Your task to perform on an android device: change notifications settings Image 0: 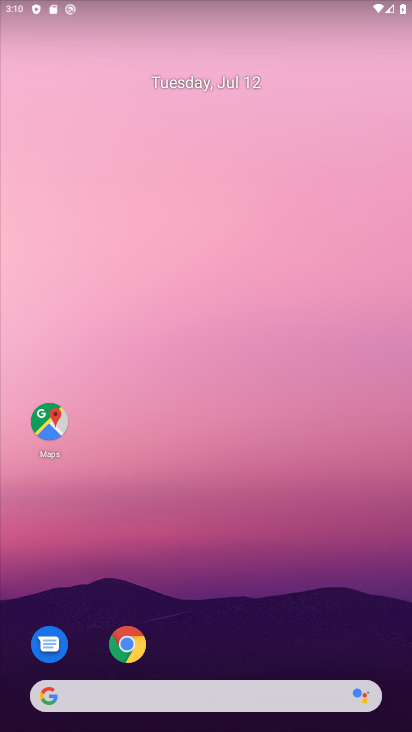
Step 0: drag from (239, 585) to (215, 61)
Your task to perform on an android device: change notifications settings Image 1: 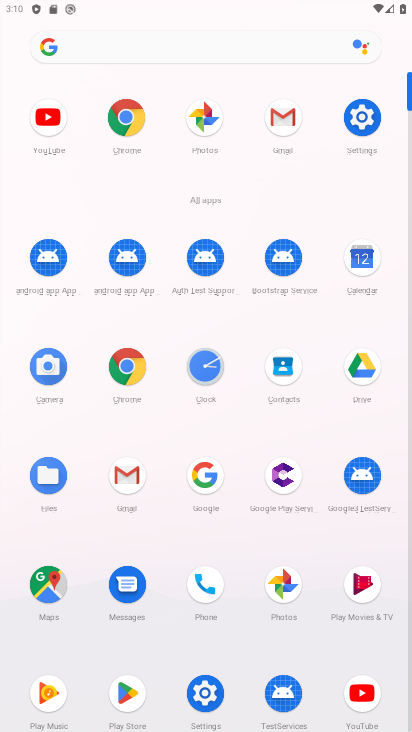
Step 1: click (372, 108)
Your task to perform on an android device: change notifications settings Image 2: 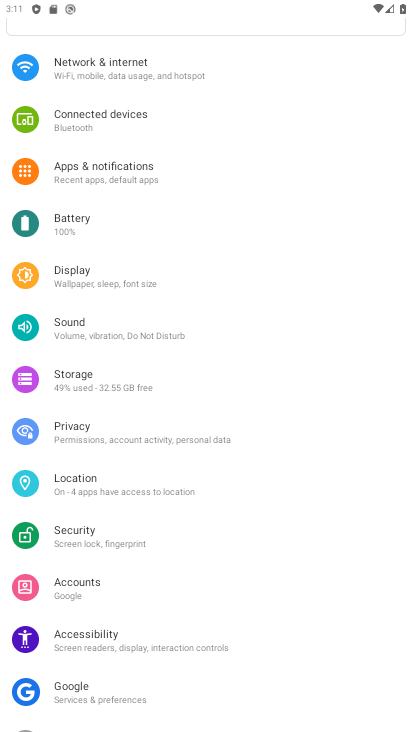
Step 2: click (130, 164)
Your task to perform on an android device: change notifications settings Image 3: 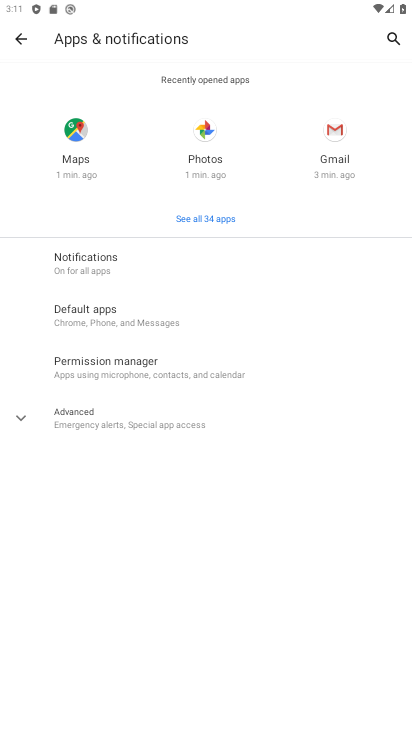
Step 3: click (124, 261)
Your task to perform on an android device: change notifications settings Image 4: 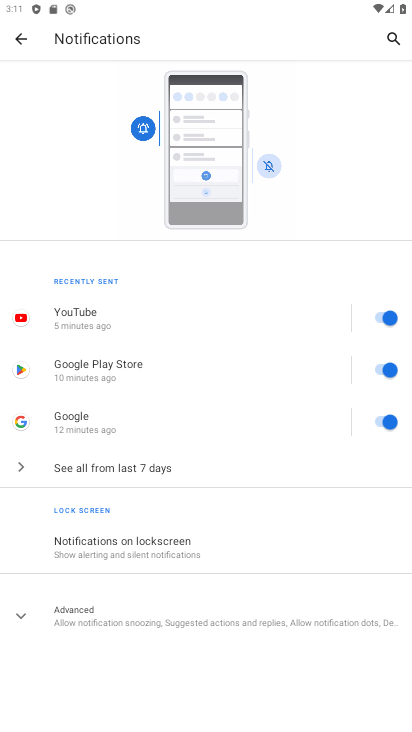
Step 4: click (97, 635)
Your task to perform on an android device: change notifications settings Image 5: 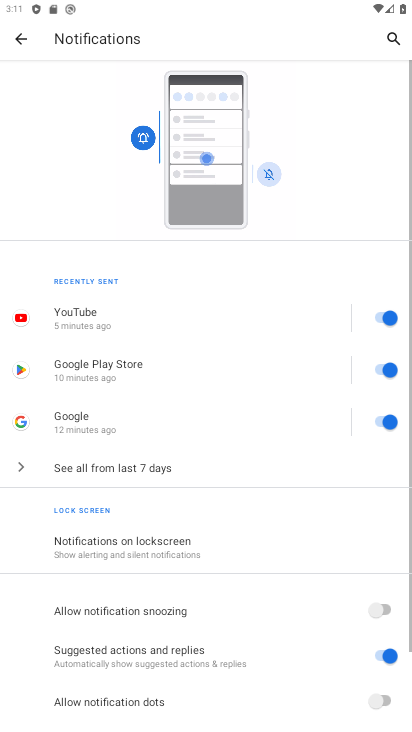
Step 5: click (387, 604)
Your task to perform on an android device: change notifications settings Image 6: 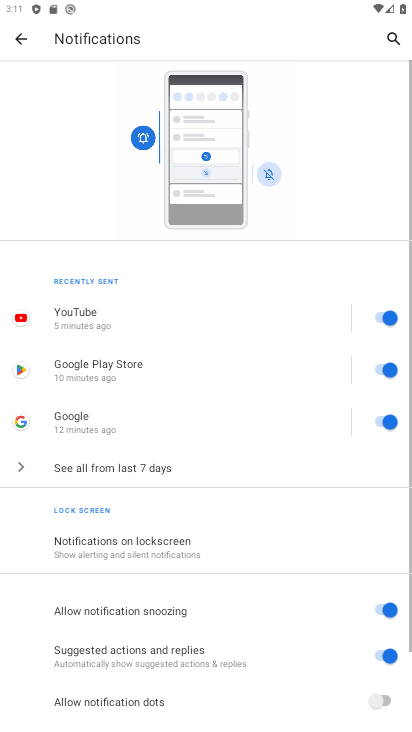
Step 6: task complete